Your task to perform on an android device: What's the weather? Image 0: 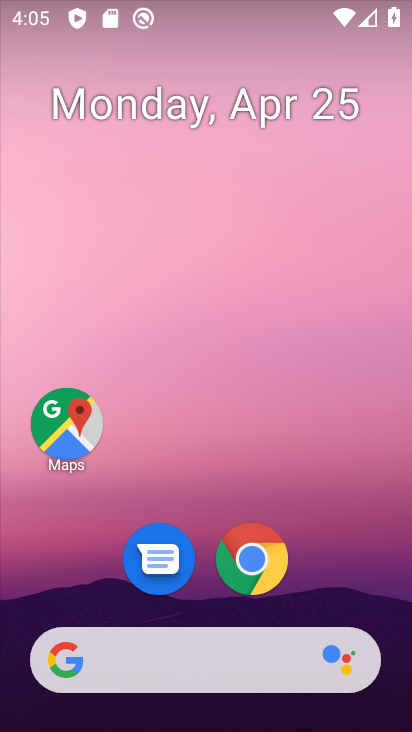
Step 0: drag from (210, 475) to (291, 86)
Your task to perform on an android device: What's the weather? Image 1: 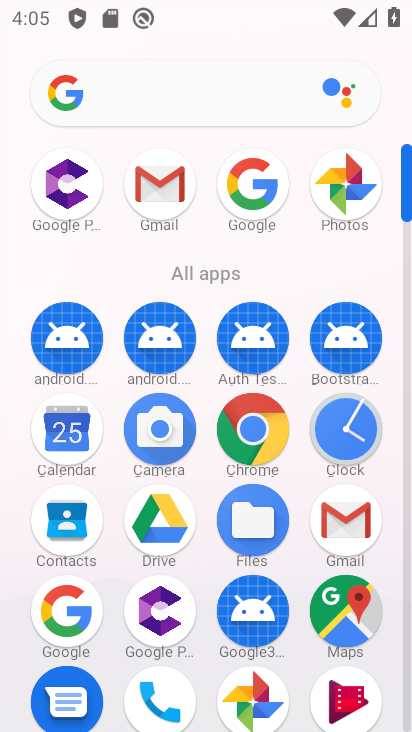
Step 1: click (250, 183)
Your task to perform on an android device: What's the weather? Image 2: 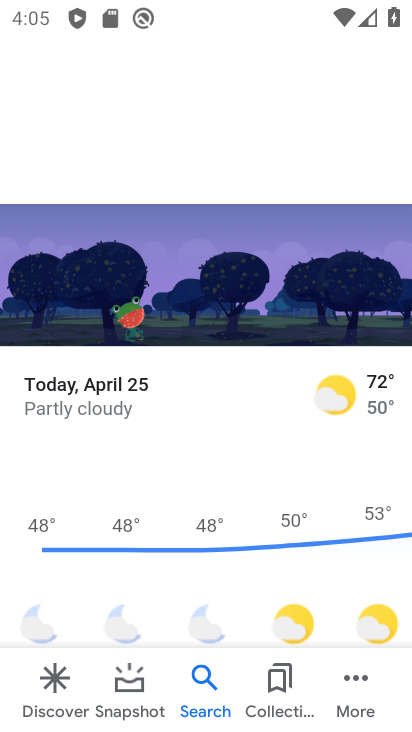
Step 2: click (238, 463)
Your task to perform on an android device: What's the weather? Image 3: 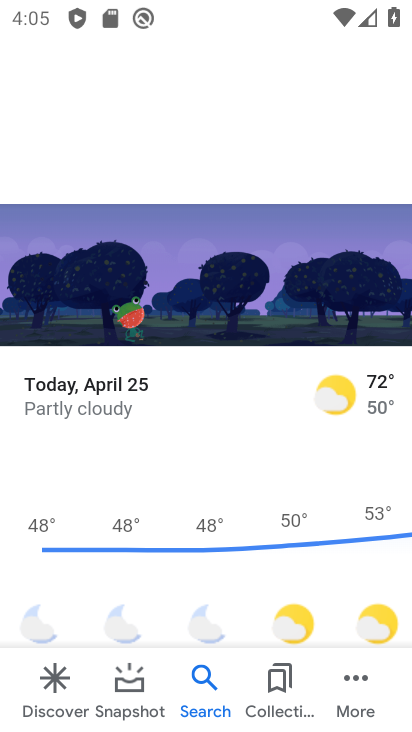
Step 3: task complete